Your task to perform on an android device: Go to privacy settings Image 0: 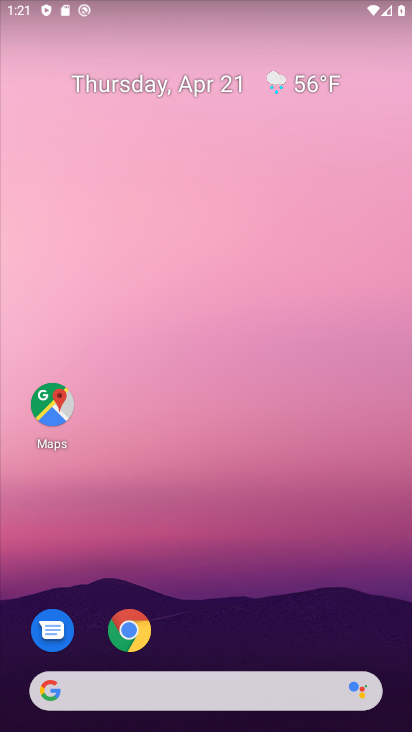
Step 0: drag from (119, 717) to (159, 217)
Your task to perform on an android device: Go to privacy settings Image 1: 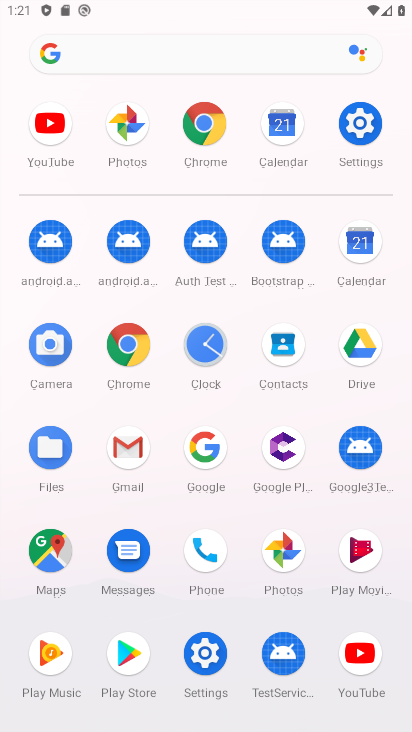
Step 1: click (319, 139)
Your task to perform on an android device: Go to privacy settings Image 2: 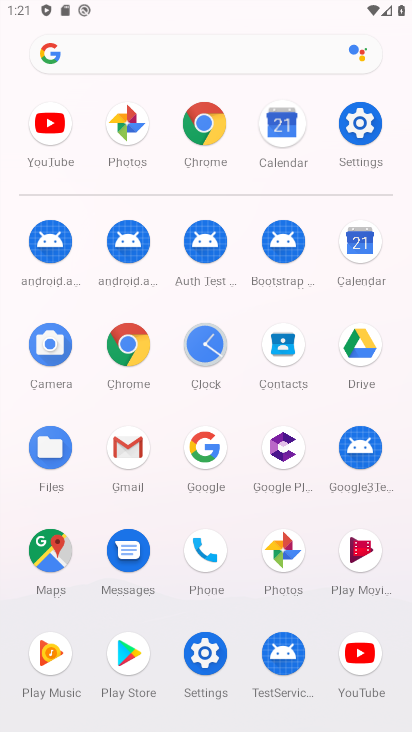
Step 2: click (319, 141)
Your task to perform on an android device: Go to privacy settings Image 3: 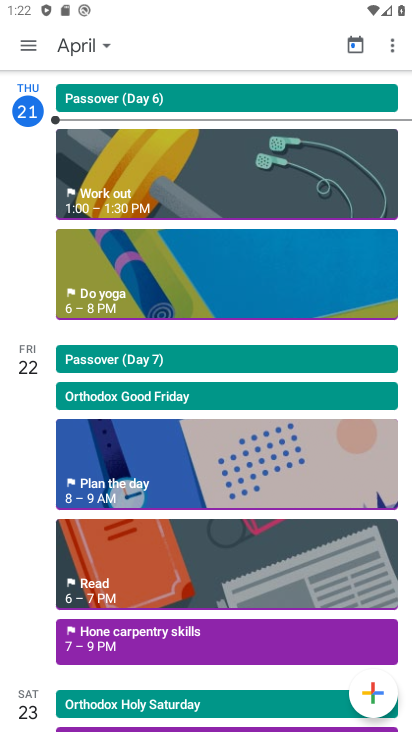
Step 3: press home button
Your task to perform on an android device: Go to privacy settings Image 4: 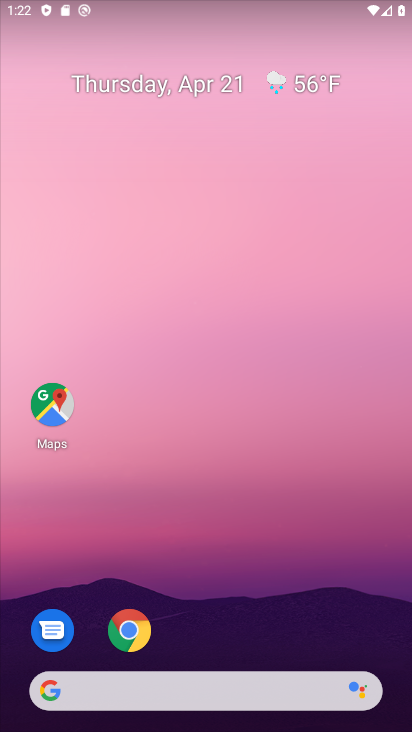
Step 4: drag from (164, 653) to (176, 148)
Your task to perform on an android device: Go to privacy settings Image 5: 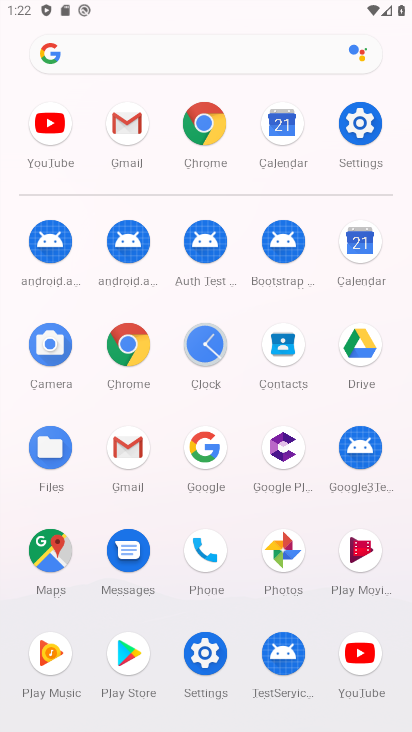
Step 5: click (371, 122)
Your task to perform on an android device: Go to privacy settings Image 6: 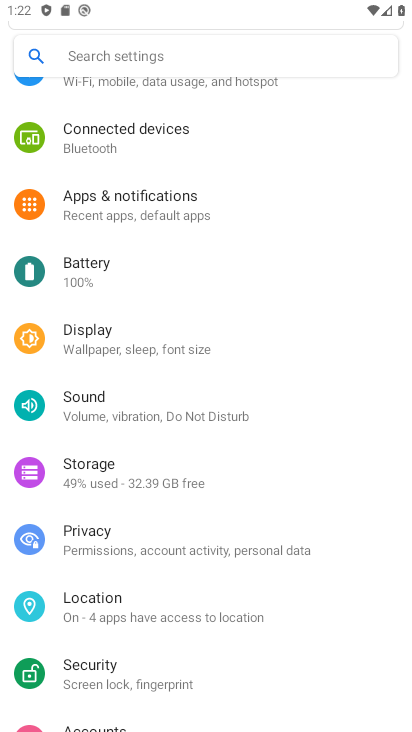
Step 6: click (121, 549)
Your task to perform on an android device: Go to privacy settings Image 7: 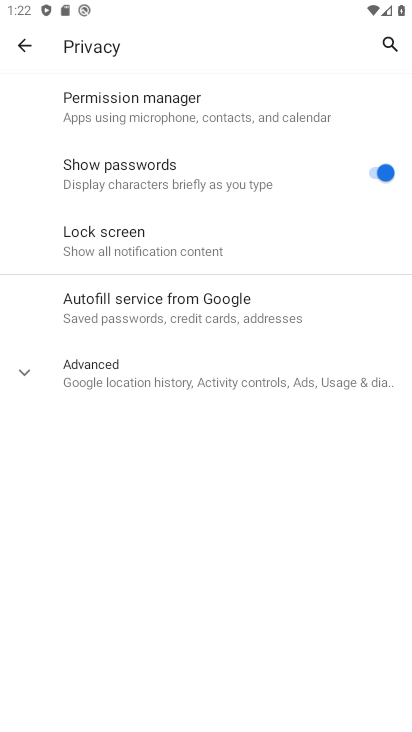
Step 7: task complete